Your task to perform on an android device: toggle translation in the chrome app Image 0: 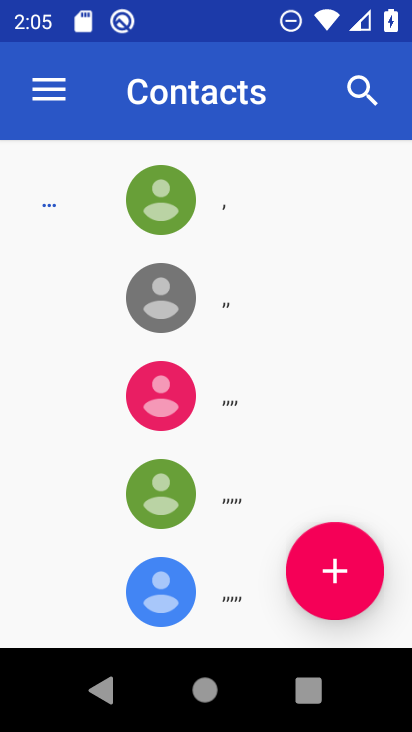
Step 0: press home button
Your task to perform on an android device: toggle translation in the chrome app Image 1: 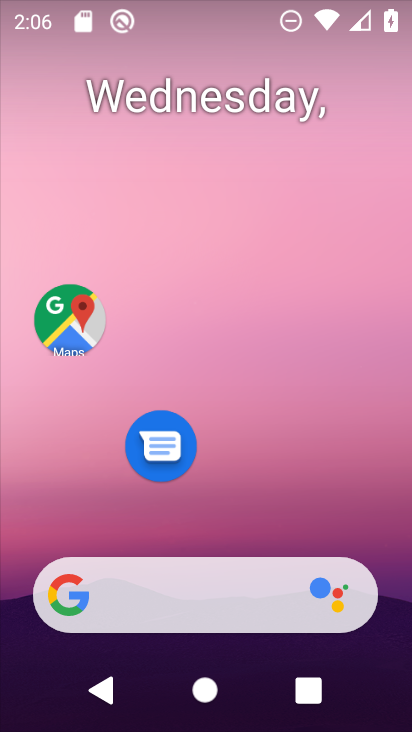
Step 1: drag from (257, 490) to (299, 44)
Your task to perform on an android device: toggle translation in the chrome app Image 2: 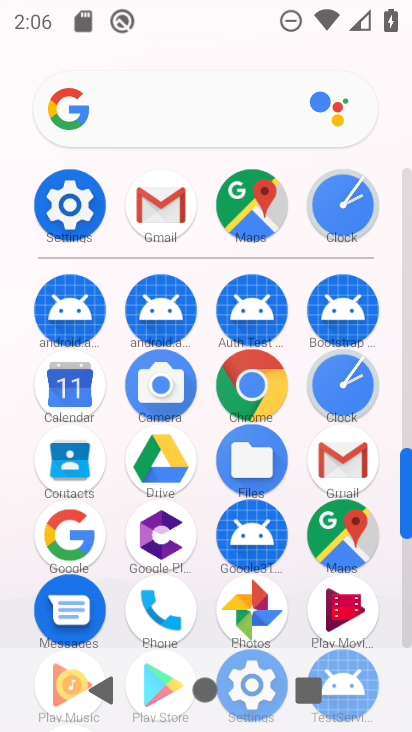
Step 2: click (250, 381)
Your task to perform on an android device: toggle translation in the chrome app Image 3: 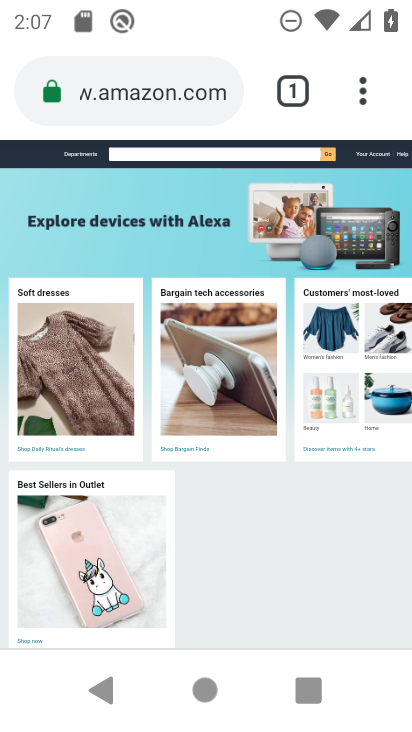
Step 3: click (372, 101)
Your task to perform on an android device: toggle translation in the chrome app Image 4: 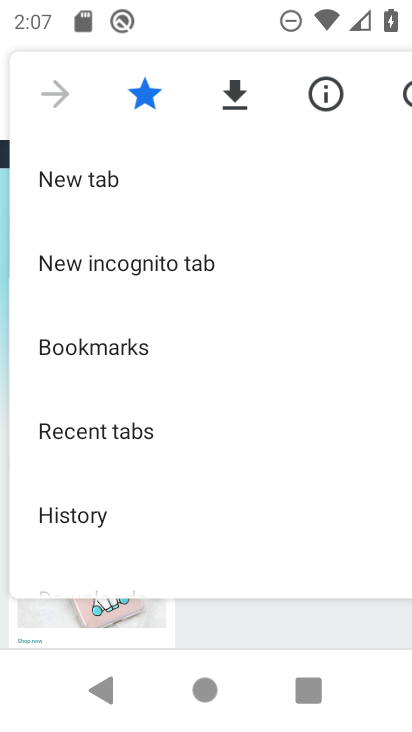
Step 4: drag from (282, 518) to (276, 276)
Your task to perform on an android device: toggle translation in the chrome app Image 5: 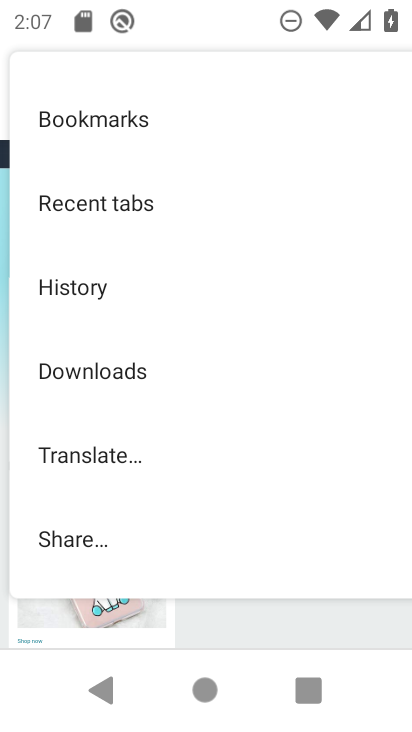
Step 5: drag from (216, 495) to (165, 174)
Your task to perform on an android device: toggle translation in the chrome app Image 6: 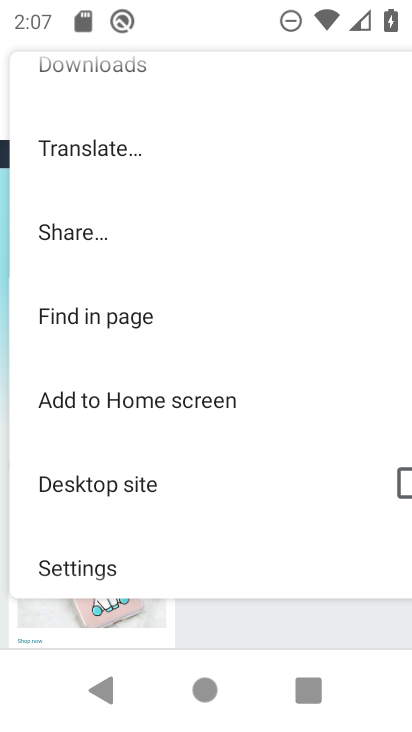
Step 6: click (131, 568)
Your task to perform on an android device: toggle translation in the chrome app Image 7: 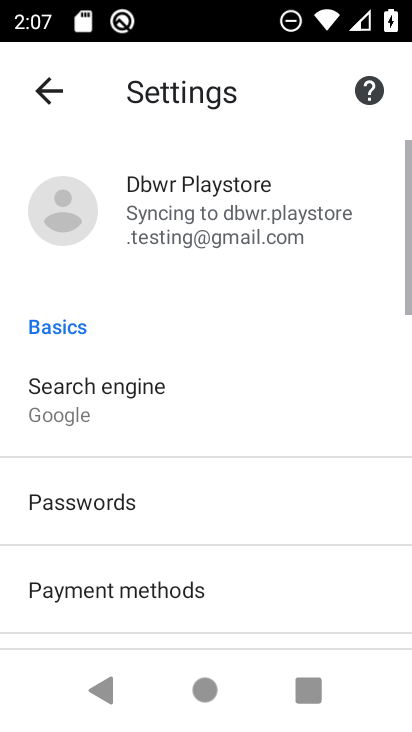
Step 7: drag from (131, 568) to (118, 203)
Your task to perform on an android device: toggle translation in the chrome app Image 8: 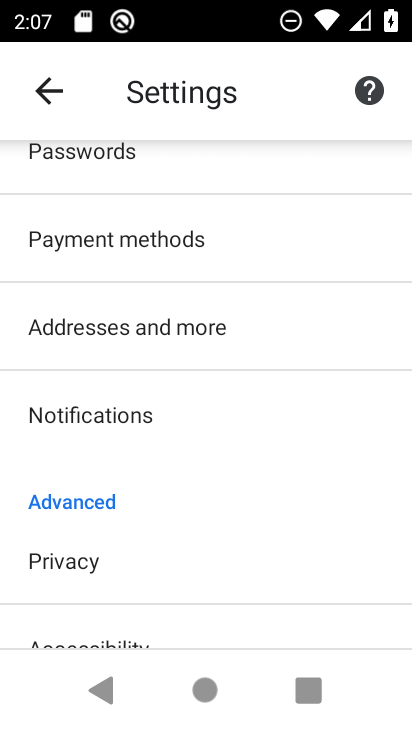
Step 8: drag from (117, 524) to (170, 95)
Your task to perform on an android device: toggle translation in the chrome app Image 9: 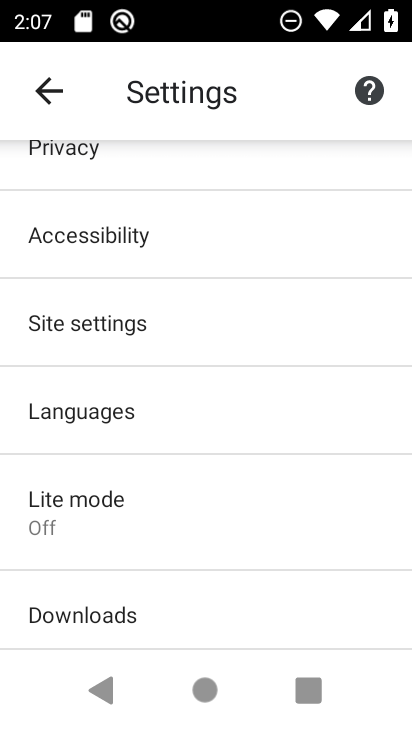
Step 9: click (145, 333)
Your task to perform on an android device: toggle translation in the chrome app Image 10: 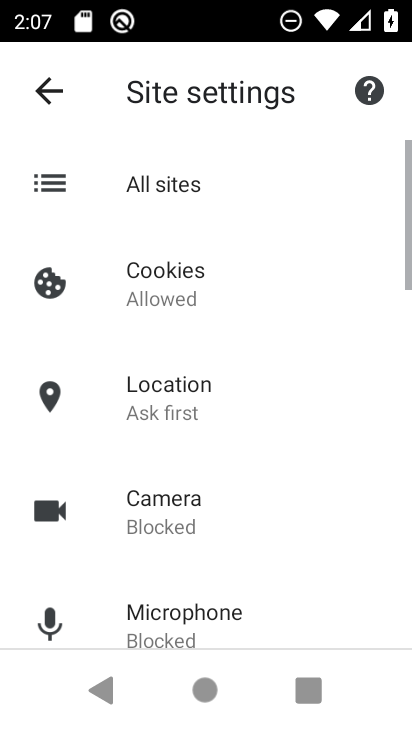
Step 10: click (55, 119)
Your task to perform on an android device: toggle translation in the chrome app Image 11: 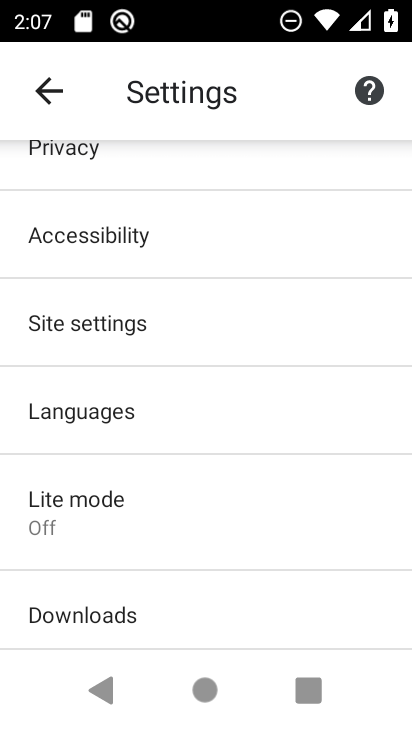
Step 11: click (90, 376)
Your task to perform on an android device: toggle translation in the chrome app Image 12: 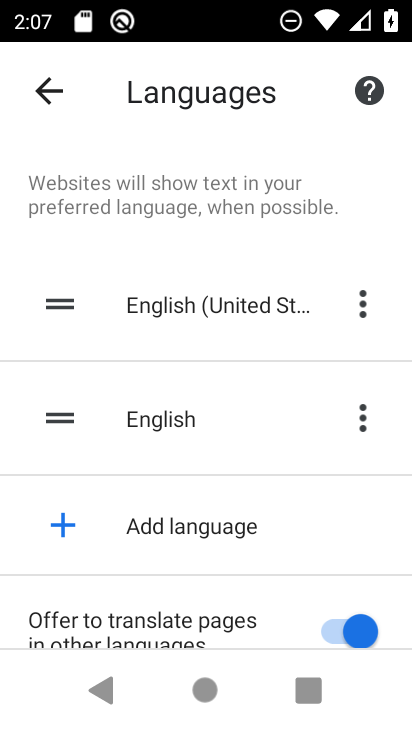
Step 12: click (128, 607)
Your task to perform on an android device: toggle translation in the chrome app Image 13: 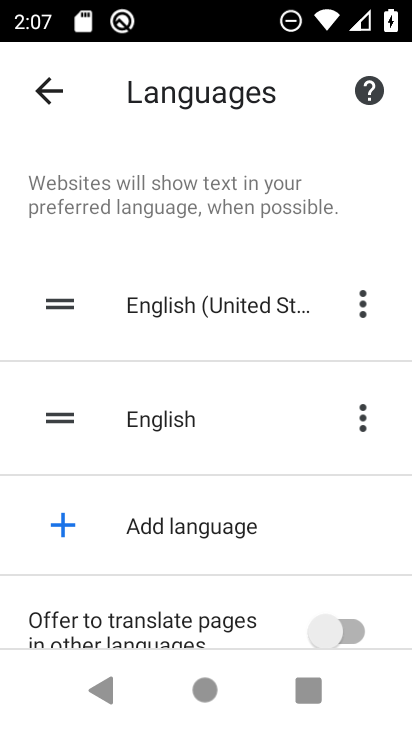
Step 13: task complete